Your task to perform on an android device: change text size in settings app Image 0: 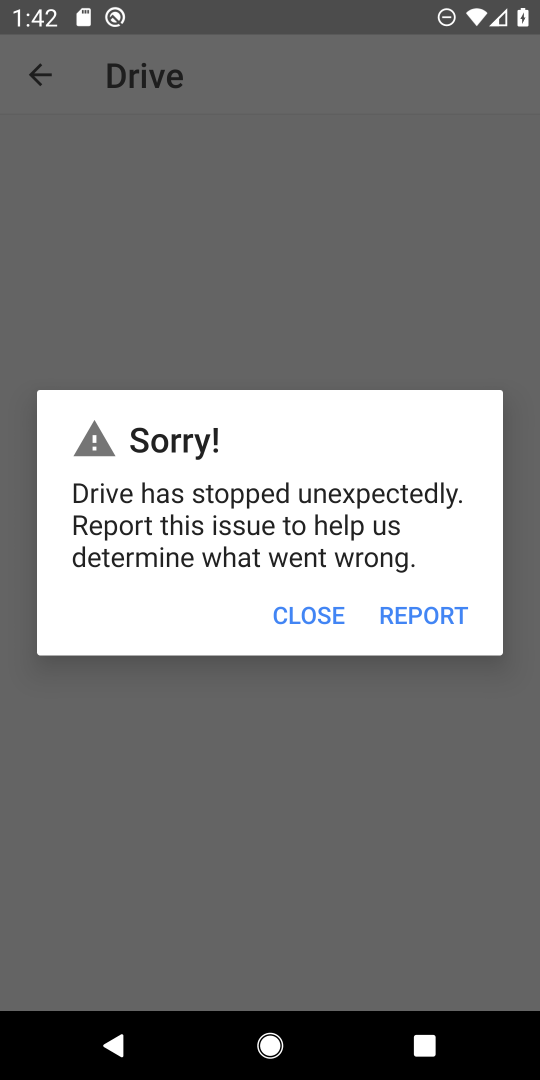
Step 0: click (334, 625)
Your task to perform on an android device: change text size in settings app Image 1: 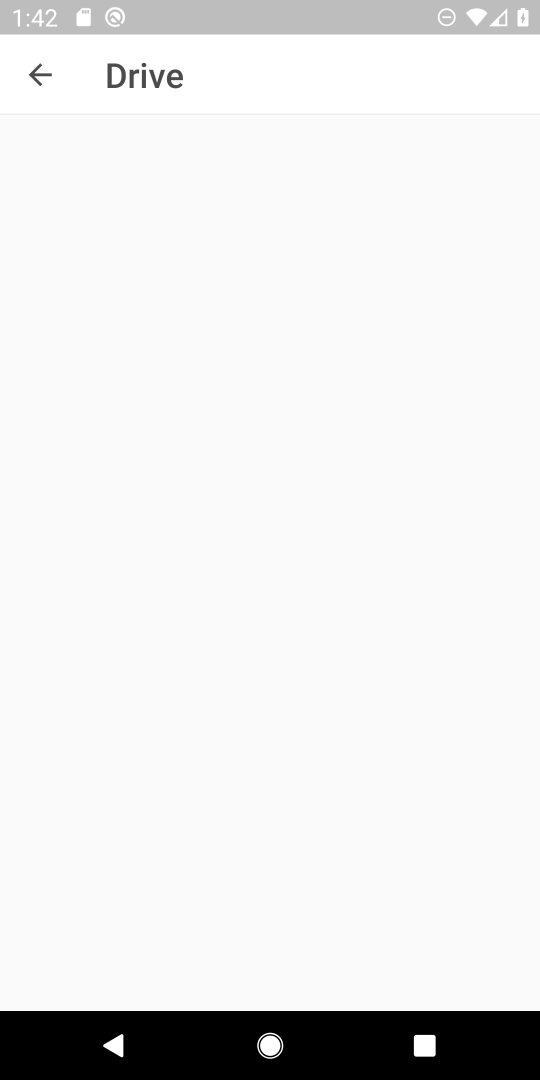
Step 1: click (306, 592)
Your task to perform on an android device: change text size in settings app Image 2: 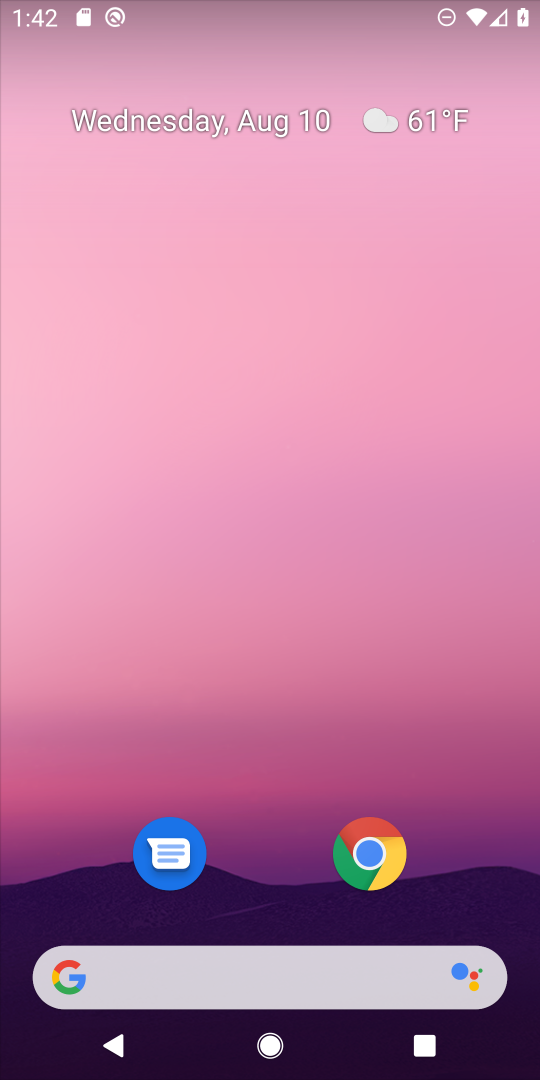
Step 2: task complete